Your task to perform on an android device: open wifi settings Image 0: 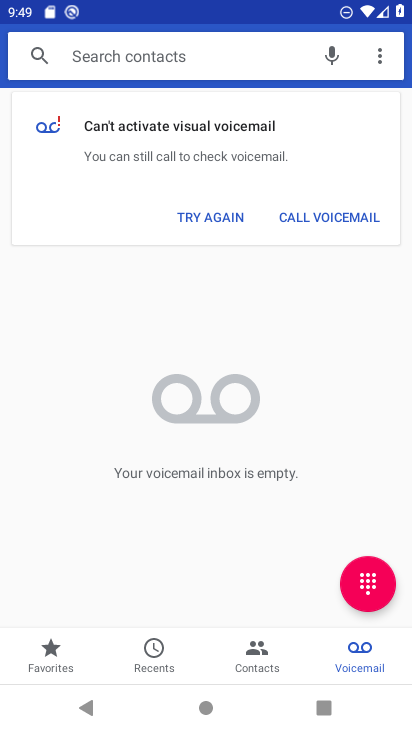
Step 0: press home button
Your task to perform on an android device: open wifi settings Image 1: 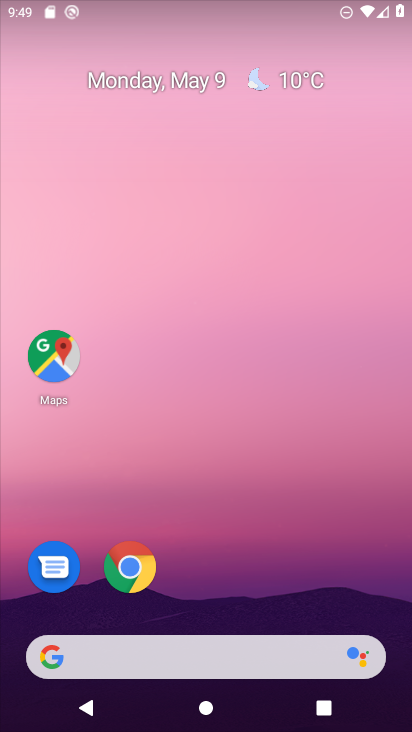
Step 1: drag from (231, 514) to (214, 45)
Your task to perform on an android device: open wifi settings Image 2: 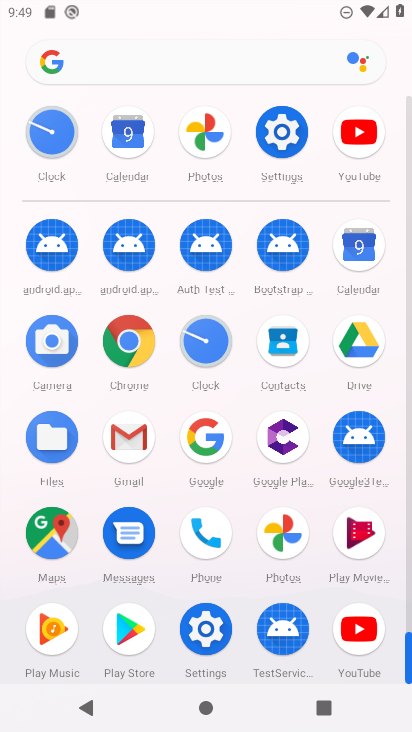
Step 2: click (261, 123)
Your task to perform on an android device: open wifi settings Image 3: 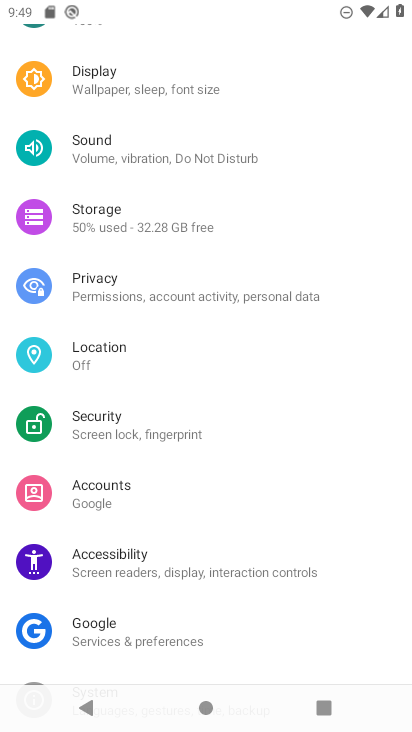
Step 3: drag from (218, 222) to (218, 420)
Your task to perform on an android device: open wifi settings Image 4: 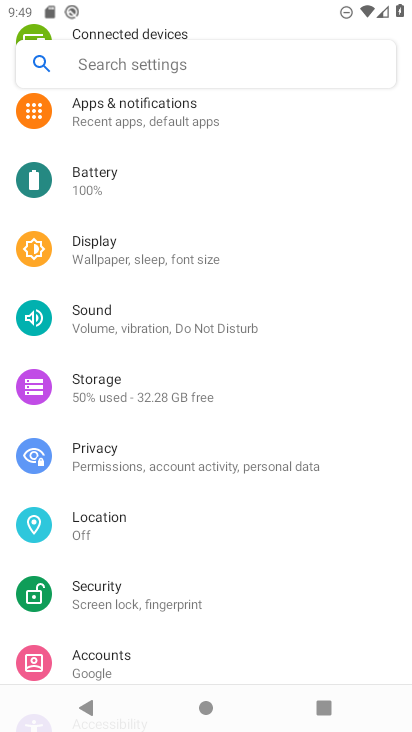
Step 4: drag from (184, 209) to (223, 637)
Your task to perform on an android device: open wifi settings Image 5: 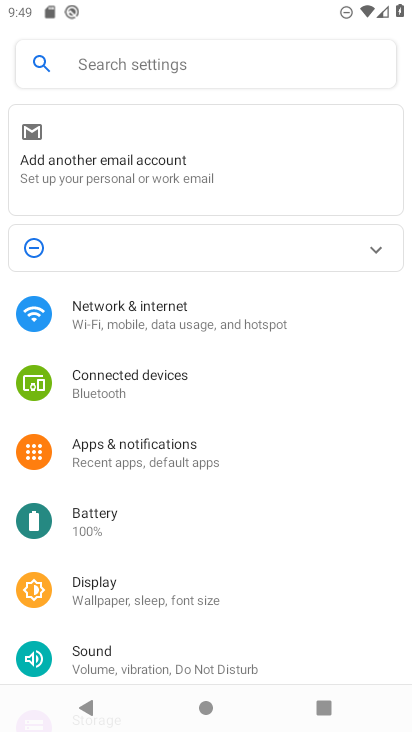
Step 5: click (201, 299)
Your task to perform on an android device: open wifi settings Image 6: 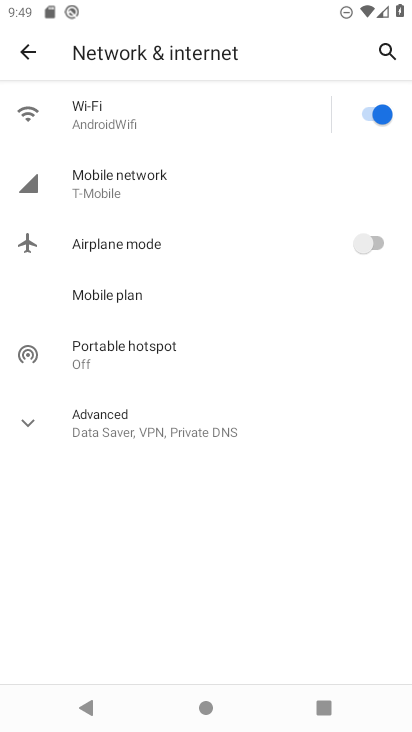
Step 6: click (200, 108)
Your task to perform on an android device: open wifi settings Image 7: 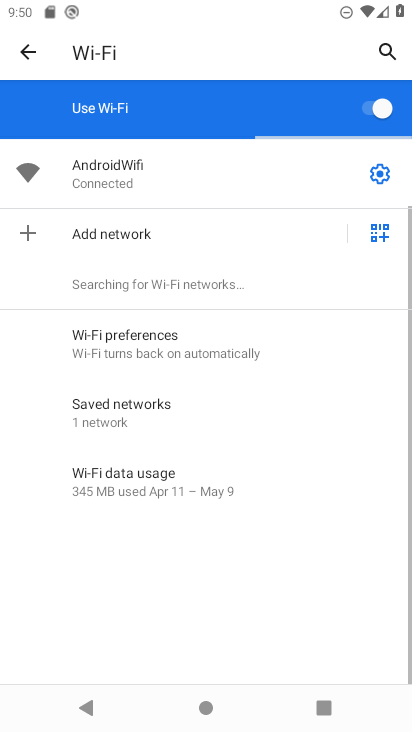
Step 7: task complete